Your task to perform on an android device: turn on showing notifications on the lock screen Image 0: 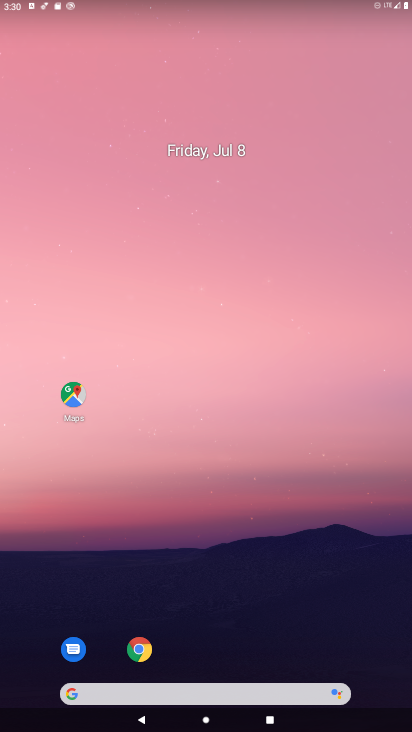
Step 0: drag from (361, 650) to (324, 142)
Your task to perform on an android device: turn on showing notifications on the lock screen Image 1: 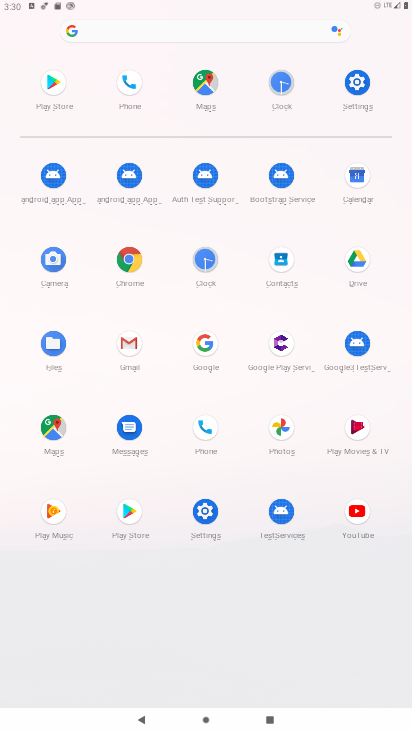
Step 1: click (206, 512)
Your task to perform on an android device: turn on showing notifications on the lock screen Image 2: 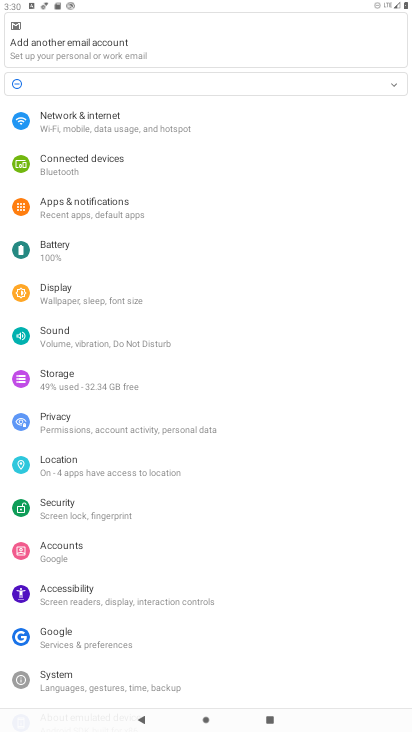
Step 2: click (86, 207)
Your task to perform on an android device: turn on showing notifications on the lock screen Image 3: 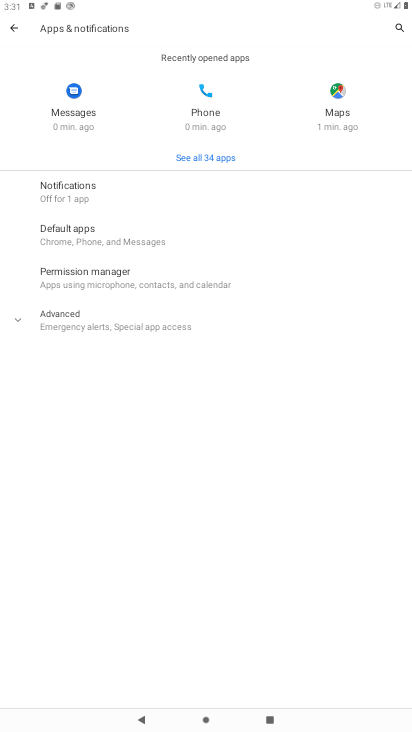
Step 3: click (62, 177)
Your task to perform on an android device: turn on showing notifications on the lock screen Image 4: 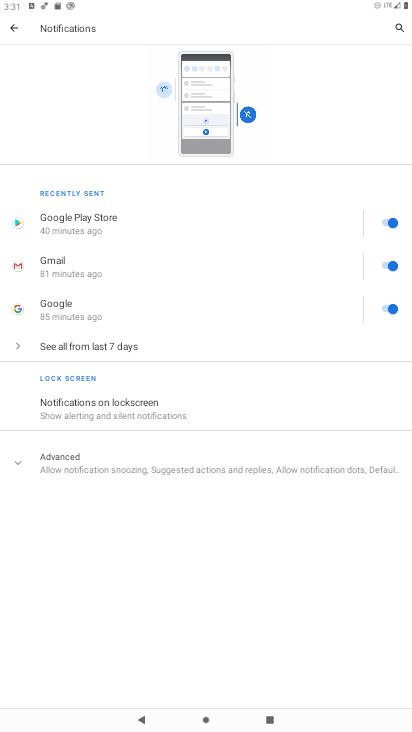
Step 4: click (96, 411)
Your task to perform on an android device: turn on showing notifications on the lock screen Image 5: 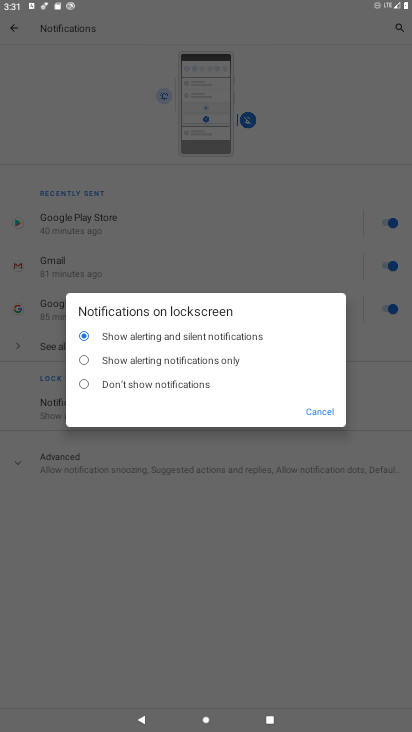
Step 5: task complete